Your task to perform on an android device: Search for pizza restaurants on Maps Image 0: 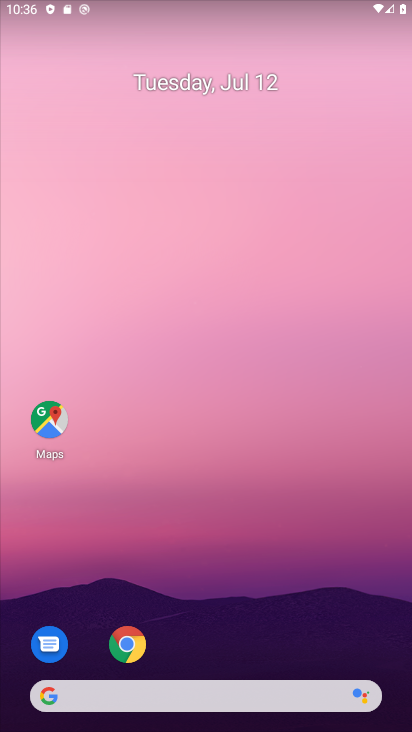
Step 0: click (49, 412)
Your task to perform on an android device: Search for pizza restaurants on Maps Image 1: 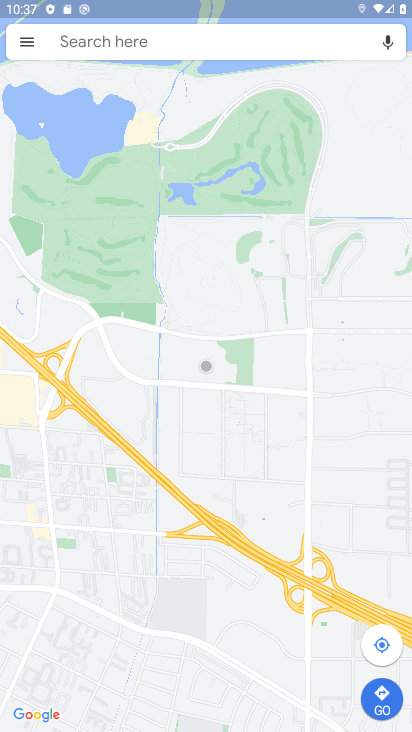
Step 1: click (105, 37)
Your task to perform on an android device: Search for pizza restaurants on Maps Image 2: 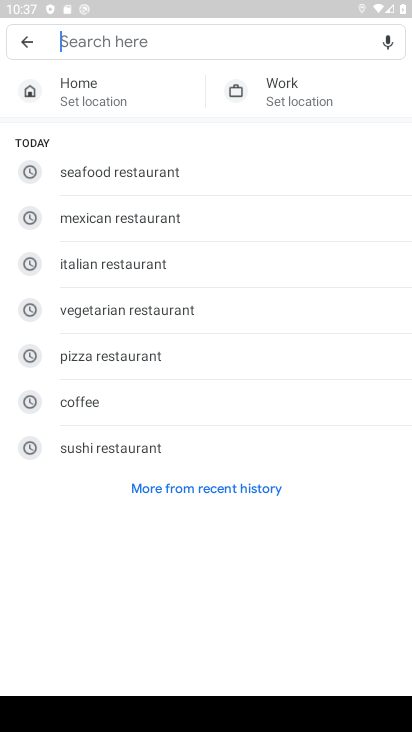
Step 2: click (111, 354)
Your task to perform on an android device: Search for pizza restaurants on Maps Image 3: 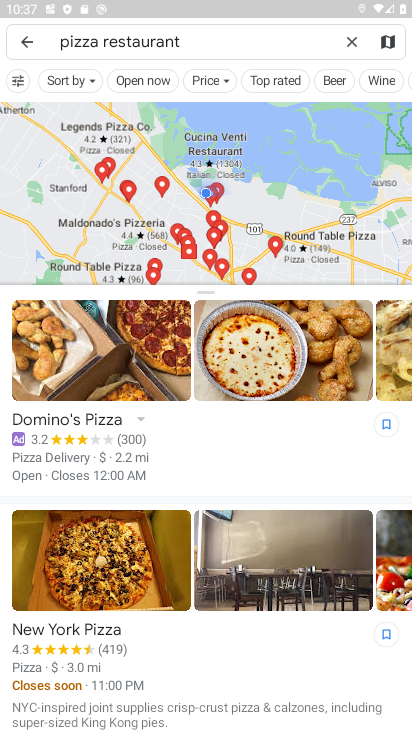
Step 3: task complete